Your task to perform on an android device: change the upload size in google photos Image 0: 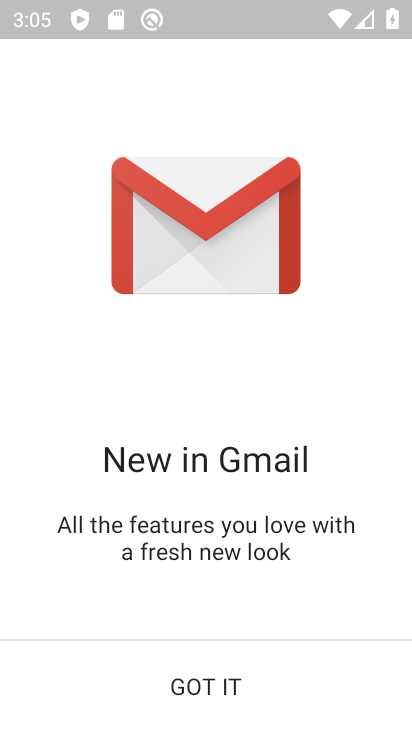
Step 0: press home button
Your task to perform on an android device: change the upload size in google photos Image 1: 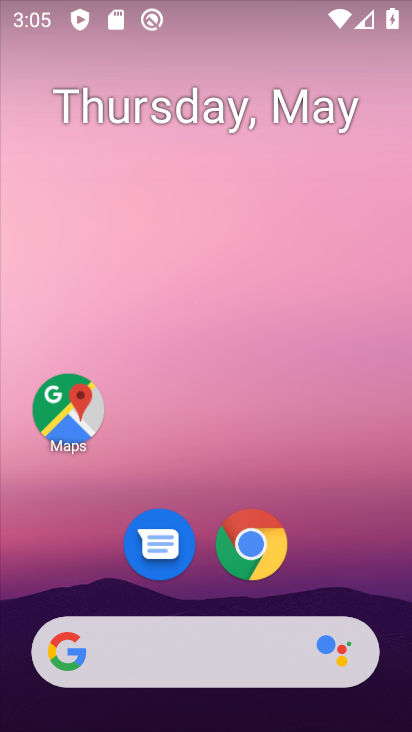
Step 1: drag from (215, 576) to (233, 146)
Your task to perform on an android device: change the upload size in google photos Image 2: 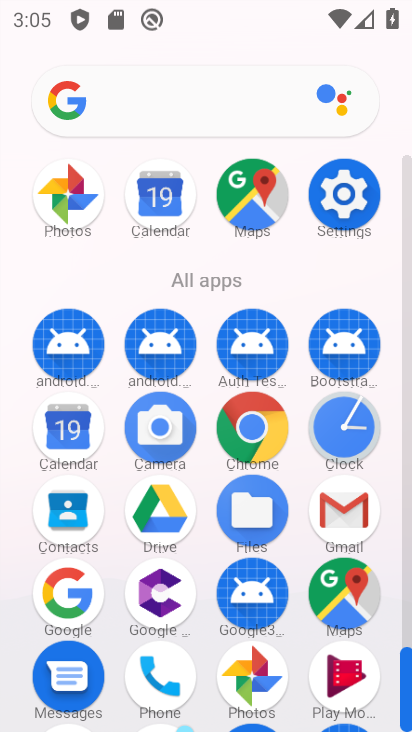
Step 2: drag from (206, 506) to (209, 374)
Your task to perform on an android device: change the upload size in google photos Image 3: 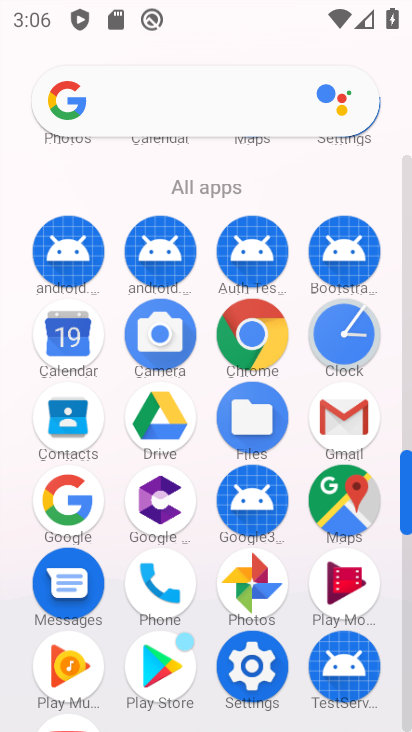
Step 3: click (256, 591)
Your task to perform on an android device: change the upload size in google photos Image 4: 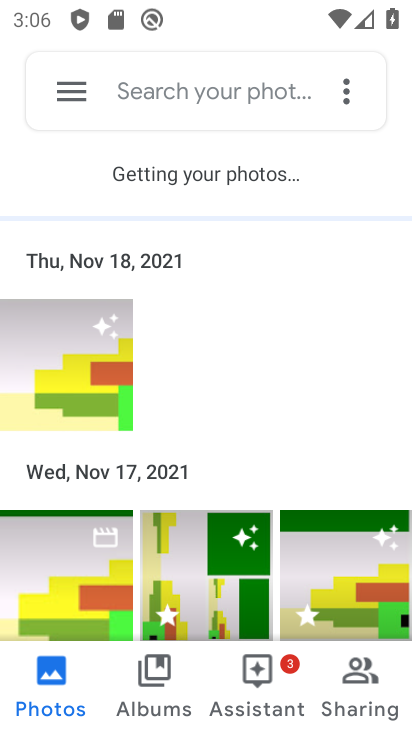
Step 4: click (74, 97)
Your task to perform on an android device: change the upload size in google photos Image 5: 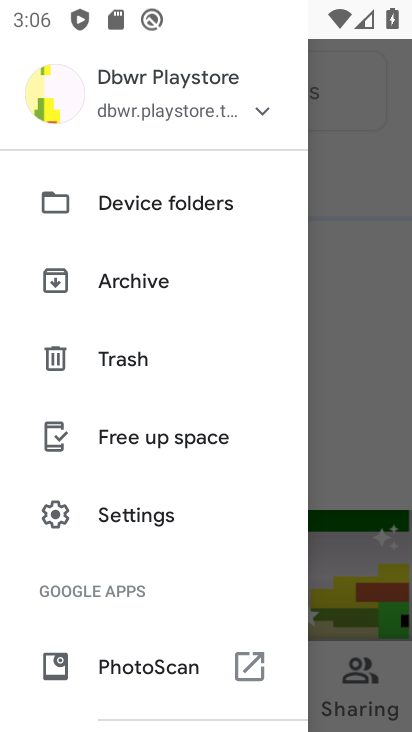
Step 5: click (143, 513)
Your task to perform on an android device: change the upload size in google photos Image 6: 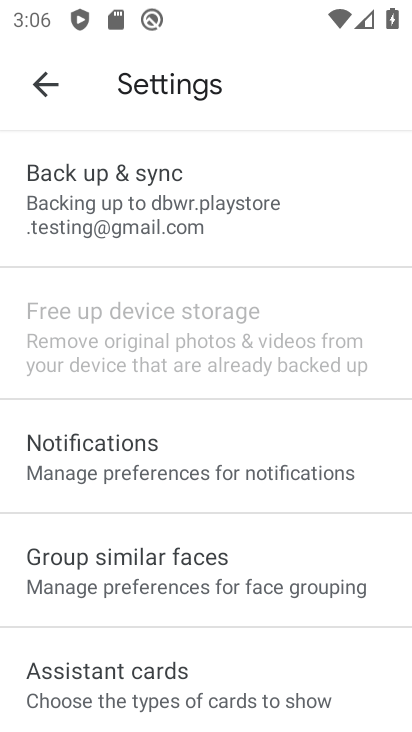
Step 6: drag from (164, 529) to (154, 562)
Your task to perform on an android device: change the upload size in google photos Image 7: 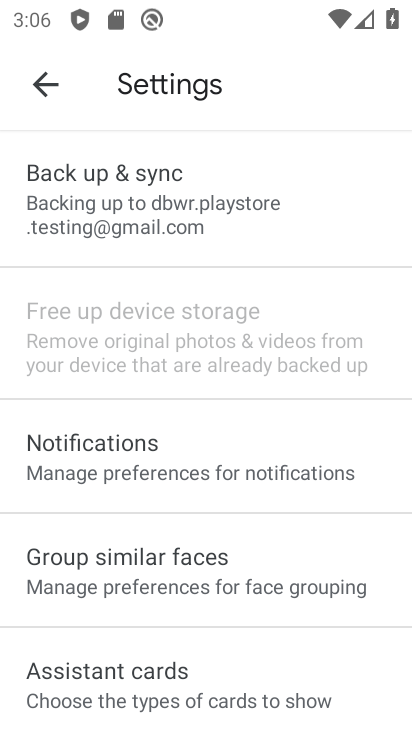
Step 7: click (150, 199)
Your task to perform on an android device: change the upload size in google photos Image 8: 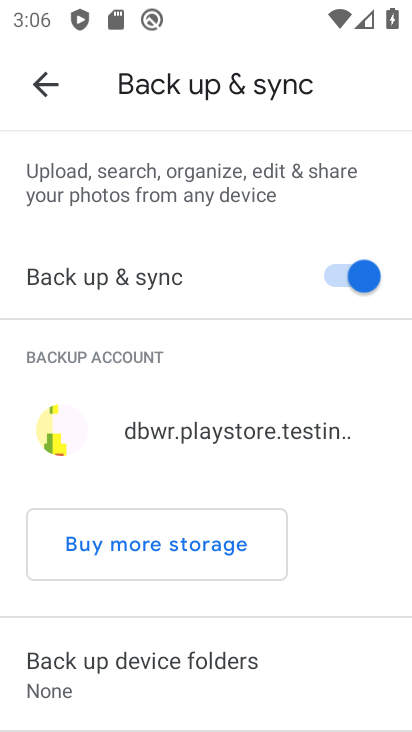
Step 8: drag from (241, 538) to (266, 254)
Your task to perform on an android device: change the upload size in google photos Image 9: 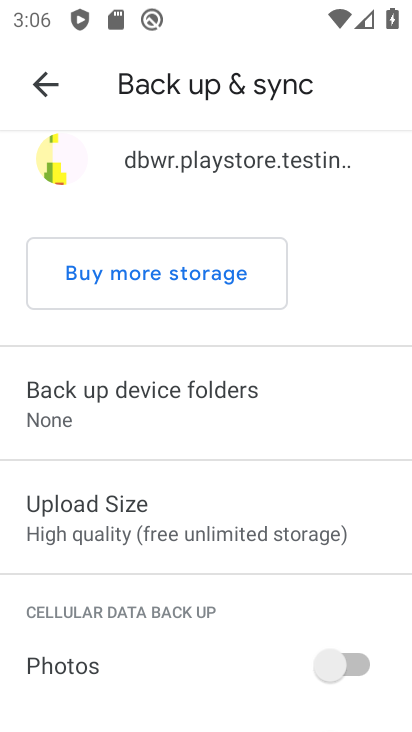
Step 9: click (228, 520)
Your task to perform on an android device: change the upload size in google photos Image 10: 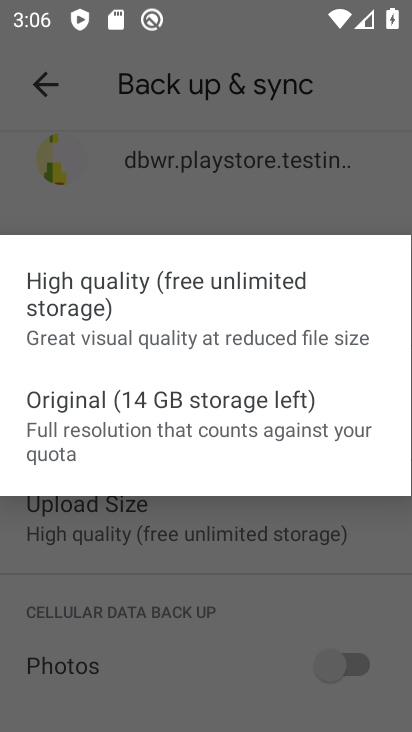
Step 10: click (180, 440)
Your task to perform on an android device: change the upload size in google photos Image 11: 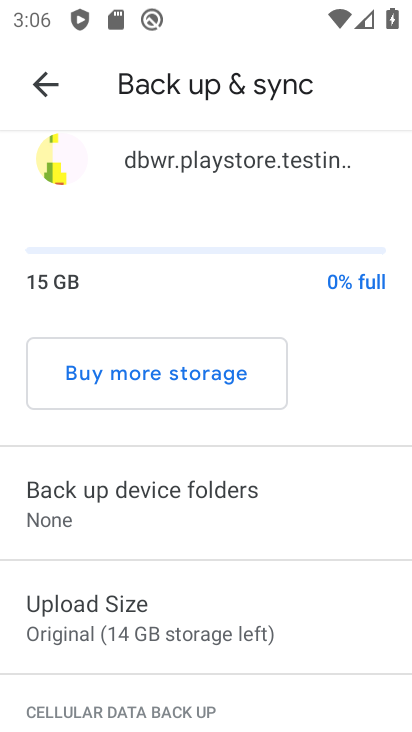
Step 11: task complete